Your task to perform on an android device: turn off priority inbox in the gmail app Image 0: 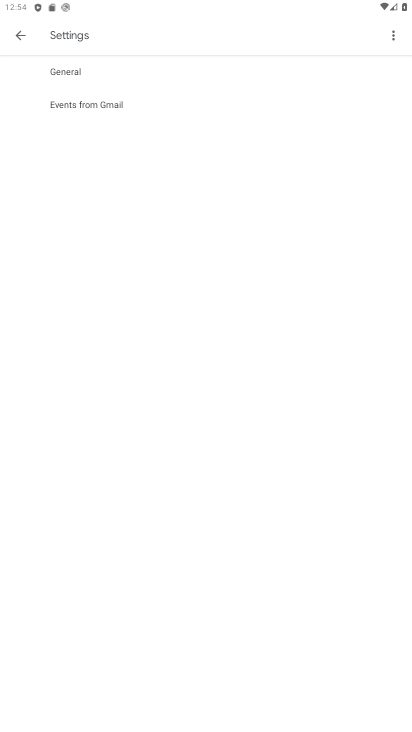
Step 0: press home button
Your task to perform on an android device: turn off priority inbox in the gmail app Image 1: 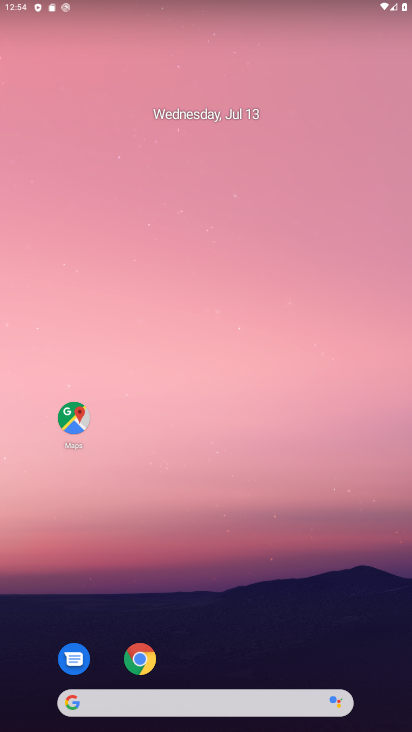
Step 1: drag from (45, 690) to (165, 193)
Your task to perform on an android device: turn off priority inbox in the gmail app Image 2: 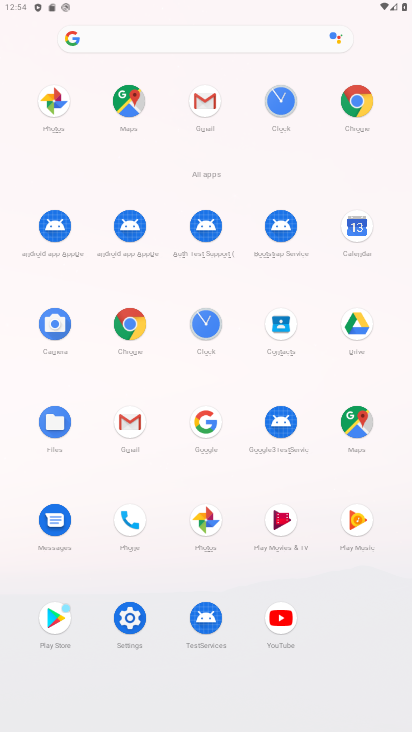
Step 2: click (209, 81)
Your task to perform on an android device: turn off priority inbox in the gmail app Image 3: 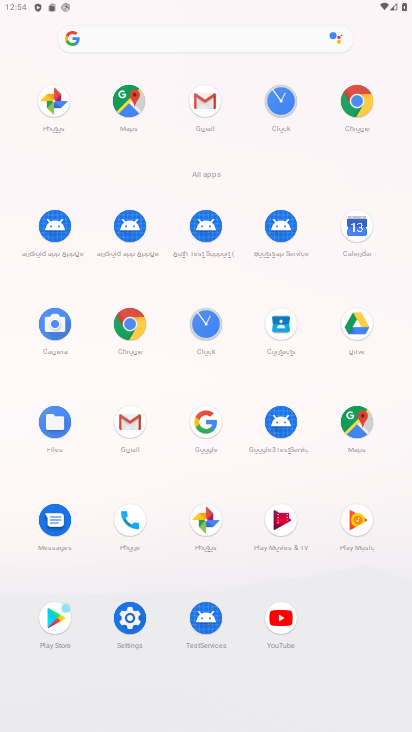
Step 3: click (202, 96)
Your task to perform on an android device: turn off priority inbox in the gmail app Image 4: 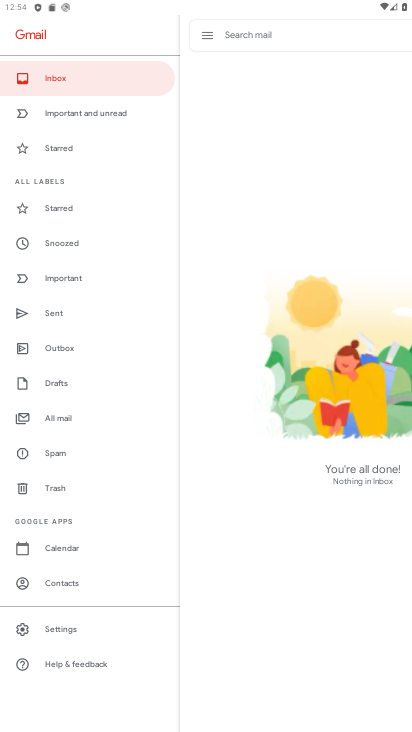
Step 4: click (89, 624)
Your task to perform on an android device: turn off priority inbox in the gmail app Image 5: 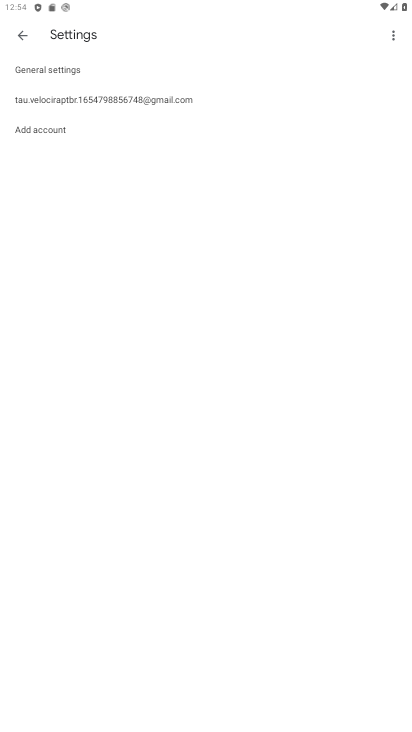
Step 5: click (63, 95)
Your task to perform on an android device: turn off priority inbox in the gmail app Image 6: 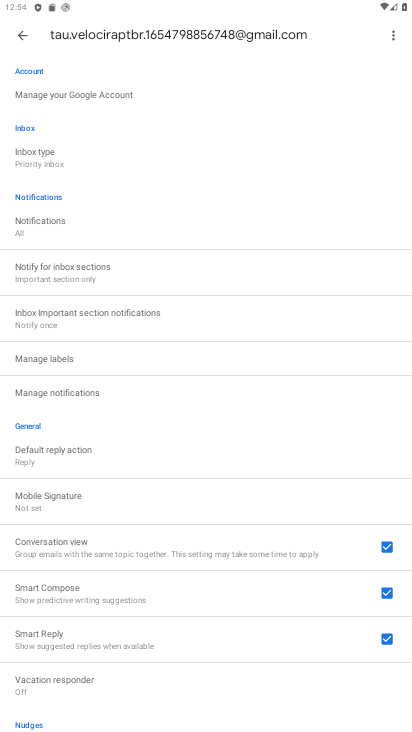
Step 6: click (57, 159)
Your task to perform on an android device: turn off priority inbox in the gmail app Image 7: 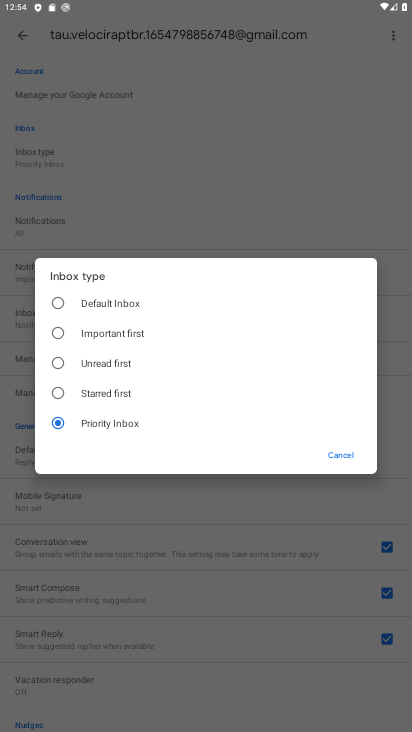
Step 7: task complete